Your task to perform on an android device: check data usage Image 0: 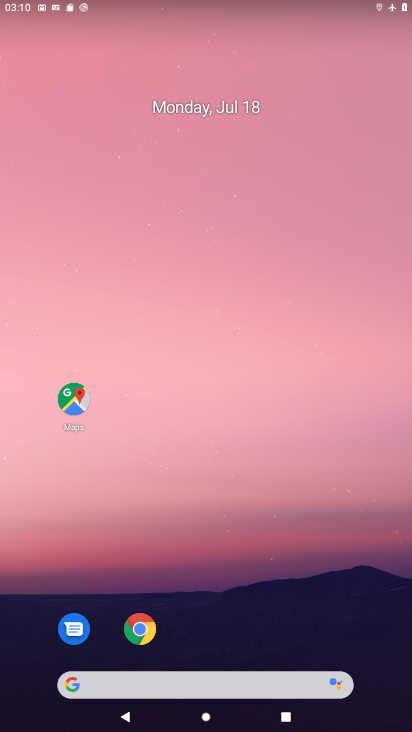
Step 0: drag from (340, 620) to (383, 106)
Your task to perform on an android device: check data usage Image 1: 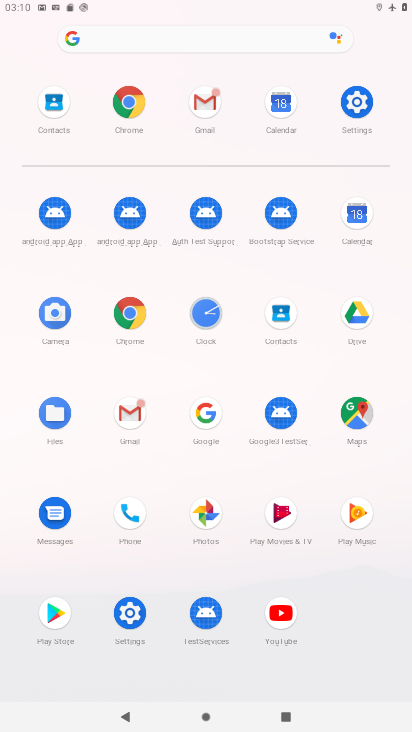
Step 1: click (360, 110)
Your task to perform on an android device: check data usage Image 2: 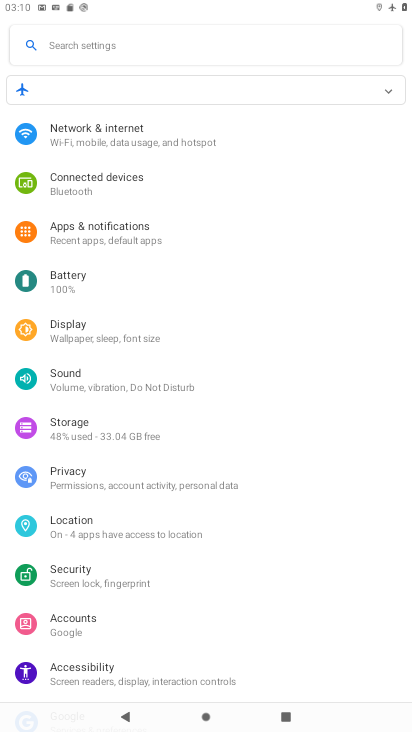
Step 2: drag from (327, 423) to (329, 335)
Your task to perform on an android device: check data usage Image 3: 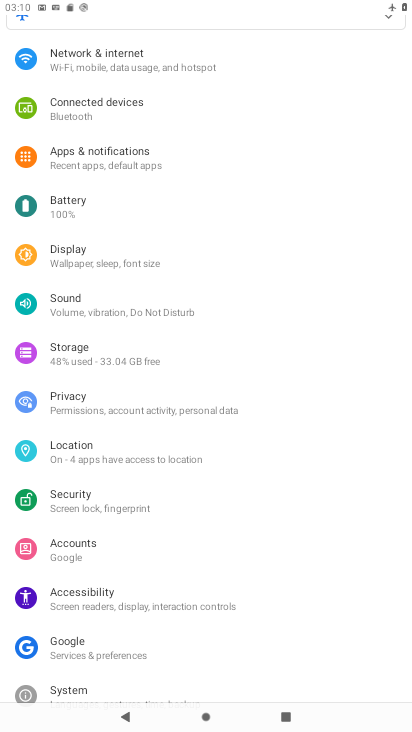
Step 3: drag from (330, 468) to (333, 371)
Your task to perform on an android device: check data usage Image 4: 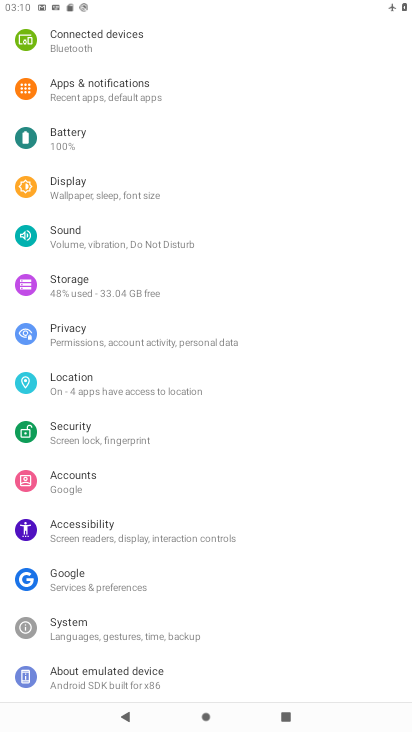
Step 4: drag from (314, 330) to (314, 424)
Your task to perform on an android device: check data usage Image 5: 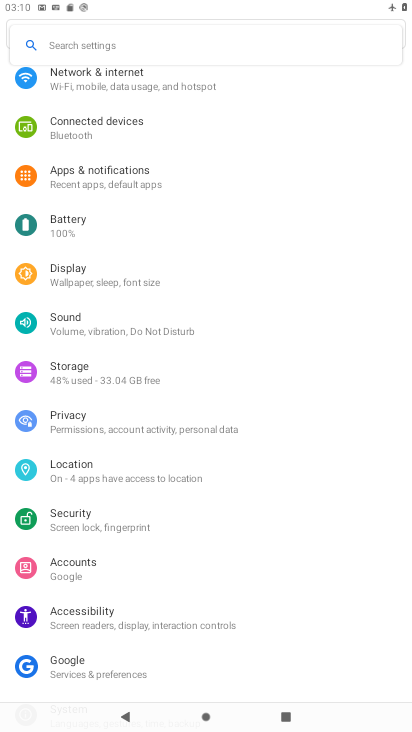
Step 5: drag from (303, 286) to (304, 393)
Your task to perform on an android device: check data usage Image 6: 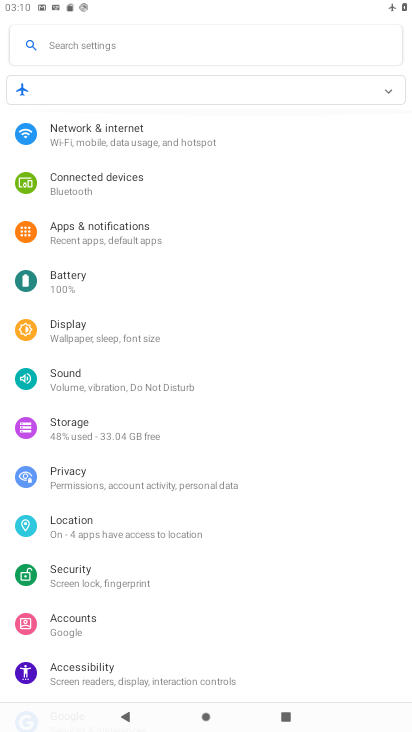
Step 6: drag from (301, 213) to (296, 328)
Your task to perform on an android device: check data usage Image 7: 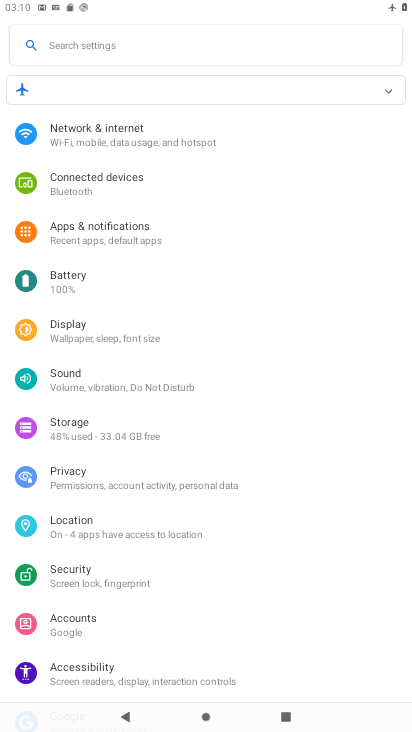
Step 7: click (221, 140)
Your task to perform on an android device: check data usage Image 8: 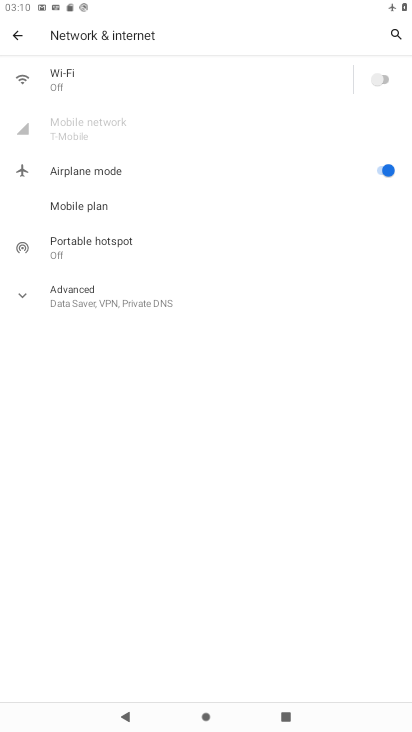
Step 8: task complete